Your task to perform on an android device: Empty the shopping cart on bestbuy. Image 0: 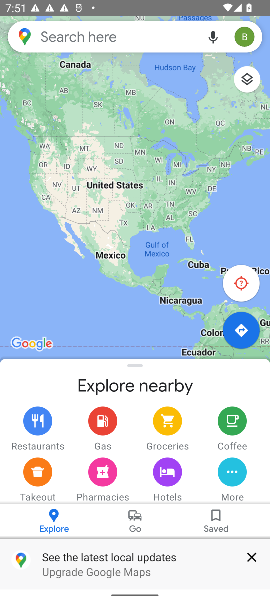
Step 0: press home button
Your task to perform on an android device: Empty the shopping cart on bestbuy. Image 1: 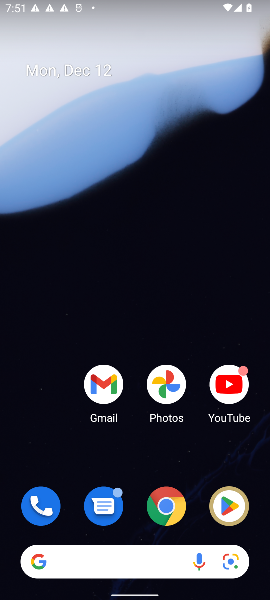
Step 1: click (140, 563)
Your task to perform on an android device: Empty the shopping cart on bestbuy. Image 2: 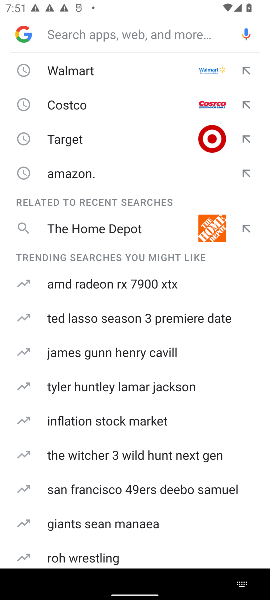
Step 2: type "bestbuy"
Your task to perform on an android device: Empty the shopping cart on bestbuy. Image 3: 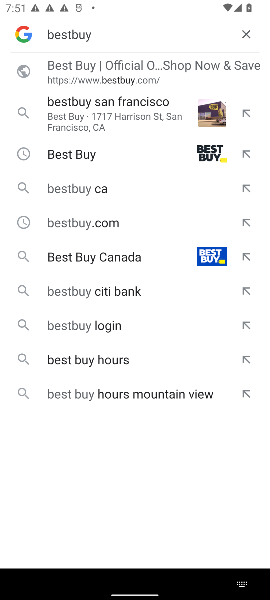
Step 3: click (153, 75)
Your task to perform on an android device: Empty the shopping cart on bestbuy. Image 4: 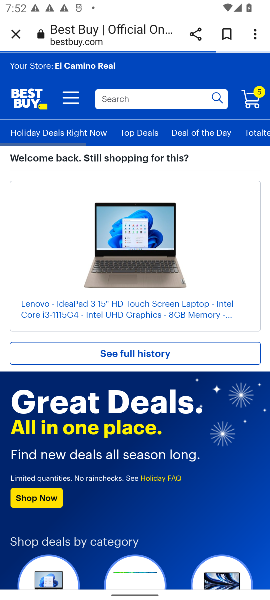
Step 4: click (128, 99)
Your task to perform on an android device: Empty the shopping cart on bestbuy. Image 5: 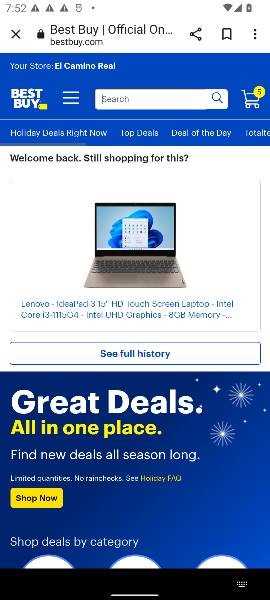
Step 5: click (245, 99)
Your task to perform on an android device: Empty the shopping cart on bestbuy. Image 6: 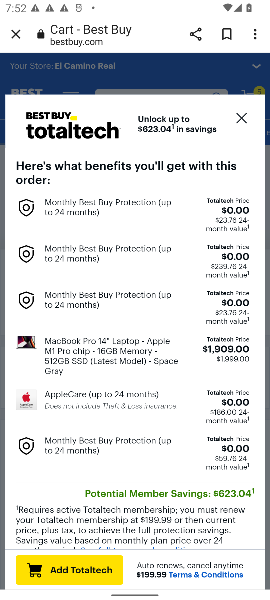
Step 6: click (237, 125)
Your task to perform on an android device: Empty the shopping cart on bestbuy. Image 7: 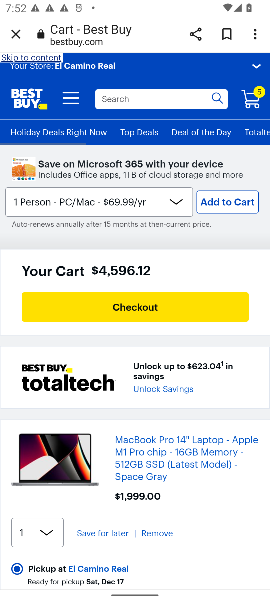
Step 7: click (255, 106)
Your task to perform on an android device: Empty the shopping cart on bestbuy. Image 8: 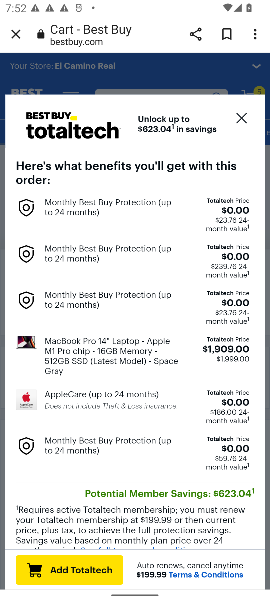
Step 8: click (233, 128)
Your task to perform on an android device: Empty the shopping cart on bestbuy. Image 9: 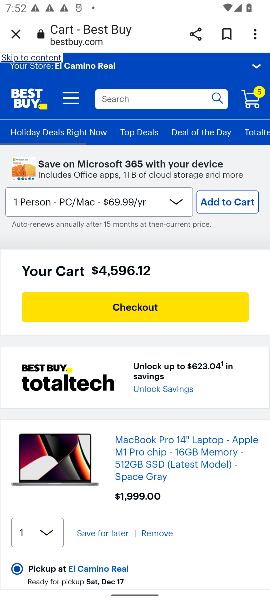
Step 9: drag from (219, 524) to (205, 391)
Your task to perform on an android device: Empty the shopping cart on bestbuy. Image 10: 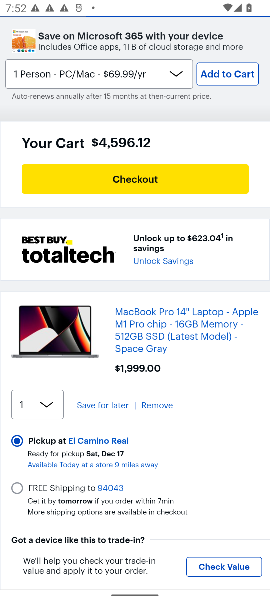
Step 10: click (152, 405)
Your task to perform on an android device: Empty the shopping cart on bestbuy. Image 11: 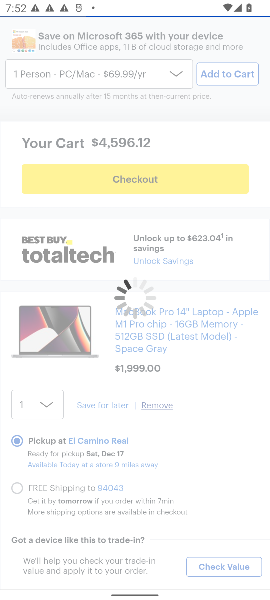
Step 11: drag from (237, 472) to (215, 273)
Your task to perform on an android device: Empty the shopping cart on bestbuy. Image 12: 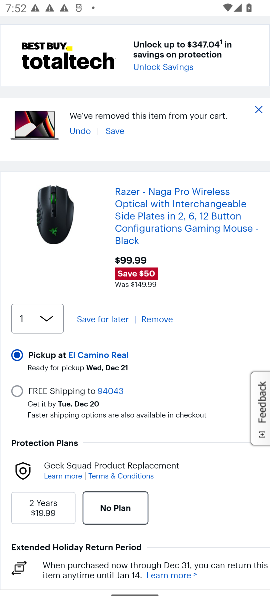
Step 12: click (165, 322)
Your task to perform on an android device: Empty the shopping cart on bestbuy. Image 13: 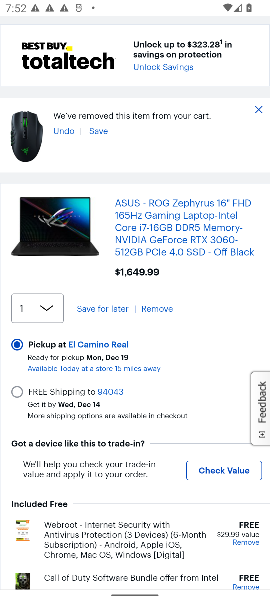
Step 13: click (148, 307)
Your task to perform on an android device: Empty the shopping cart on bestbuy. Image 14: 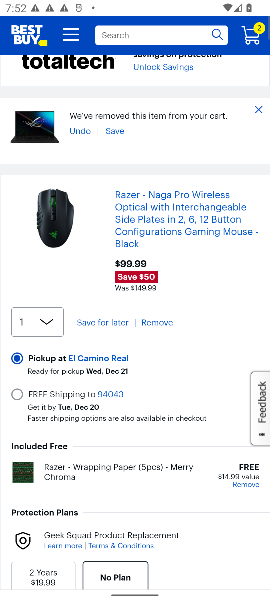
Step 14: click (163, 326)
Your task to perform on an android device: Empty the shopping cart on bestbuy. Image 15: 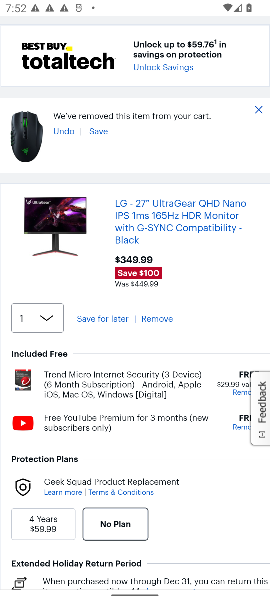
Step 15: click (162, 322)
Your task to perform on an android device: Empty the shopping cart on bestbuy. Image 16: 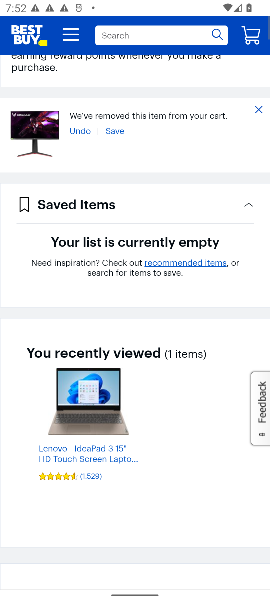
Step 16: task complete